Your task to perform on an android device: Search for sushi restaurants on Maps Image 0: 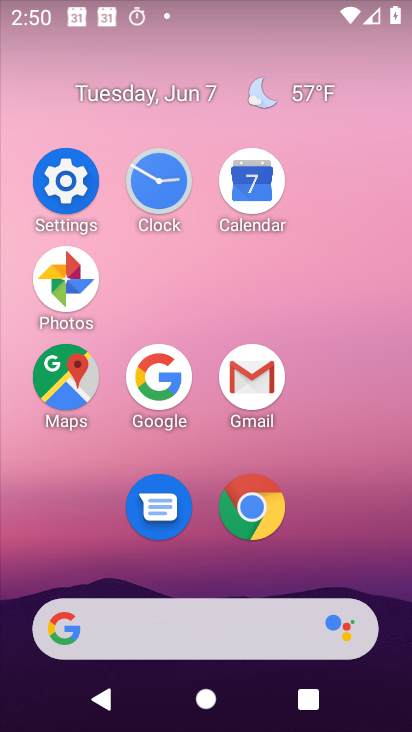
Step 0: click (71, 375)
Your task to perform on an android device: Search for sushi restaurants on Maps Image 1: 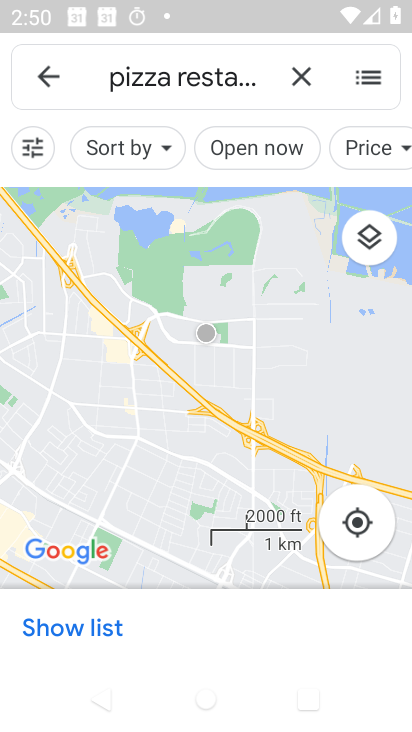
Step 1: click (297, 74)
Your task to perform on an android device: Search for sushi restaurants on Maps Image 2: 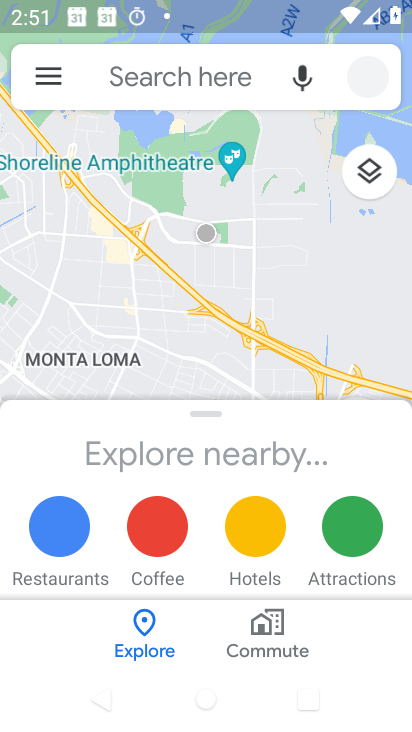
Step 2: click (237, 89)
Your task to perform on an android device: Search for sushi restaurants on Maps Image 3: 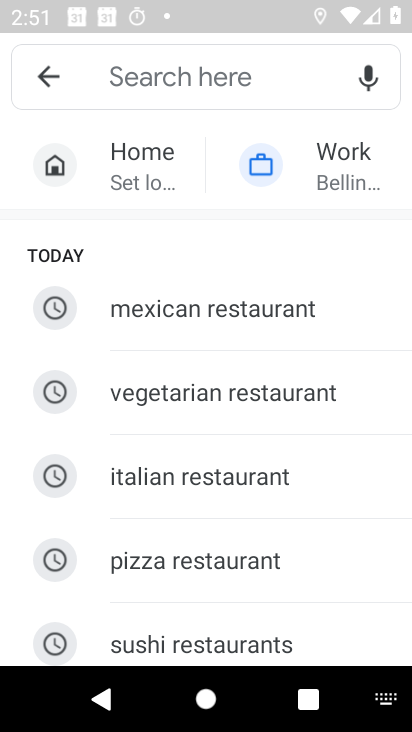
Step 3: click (247, 647)
Your task to perform on an android device: Search for sushi restaurants on Maps Image 4: 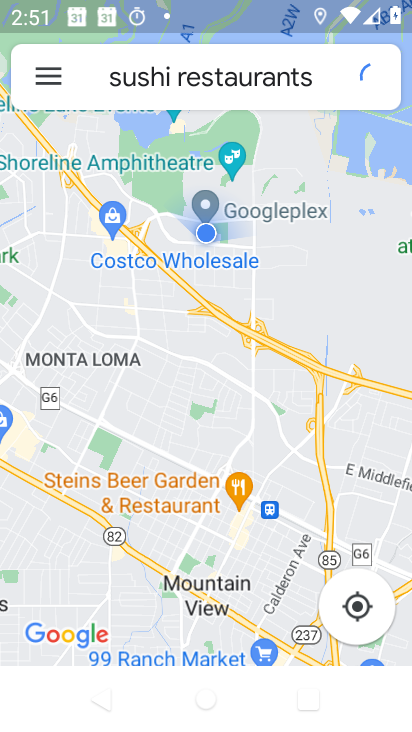
Step 4: task complete